Your task to perform on an android device: open a bookmark in the chrome app Image 0: 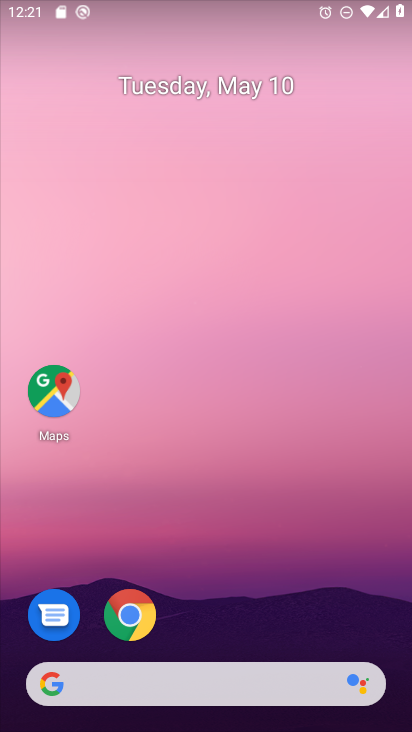
Step 0: drag from (213, 691) to (405, 160)
Your task to perform on an android device: open a bookmark in the chrome app Image 1: 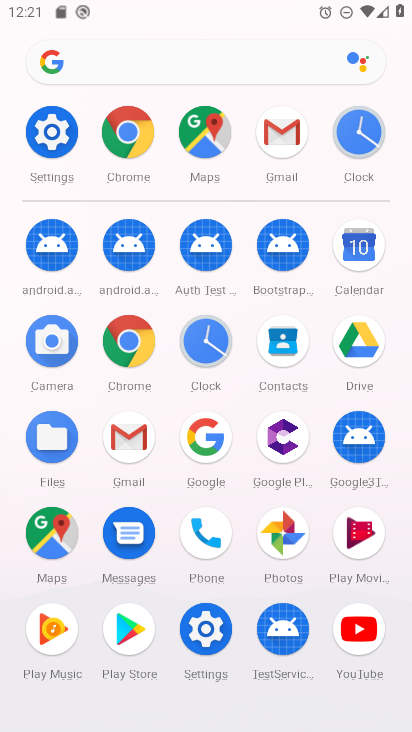
Step 1: click (132, 343)
Your task to perform on an android device: open a bookmark in the chrome app Image 2: 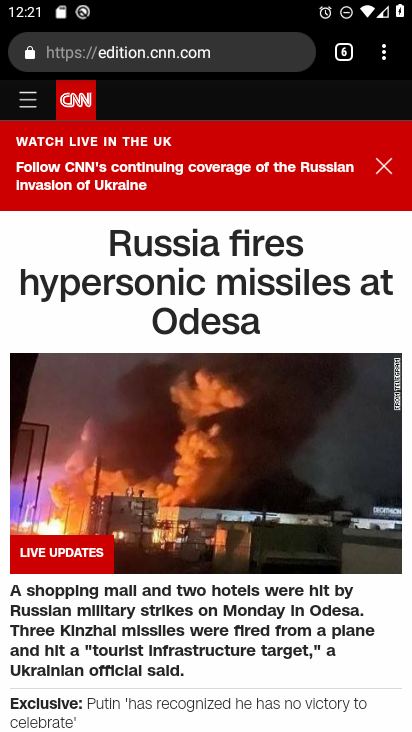
Step 2: click (375, 55)
Your task to perform on an android device: open a bookmark in the chrome app Image 3: 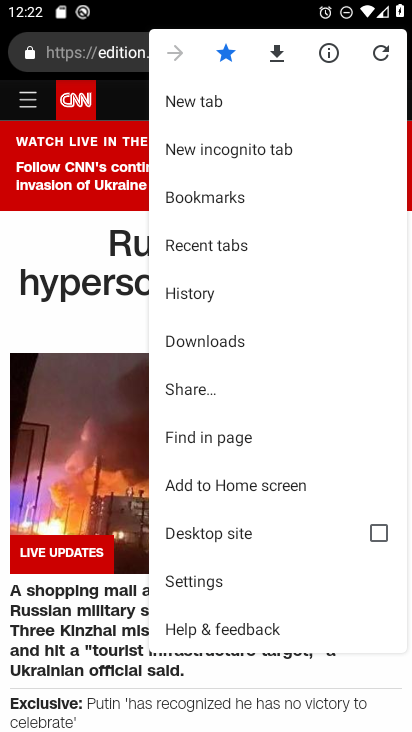
Step 3: click (210, 205)
Your task to perform on an android device: open a bookmark in the chrome app Image 4: 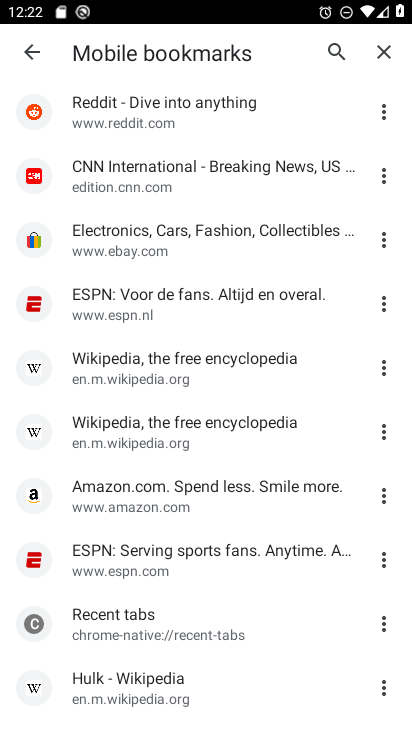
Step 4: click (97, 371)
Your task to perform on an android device: open a bookmark in the chrome app Image 5: 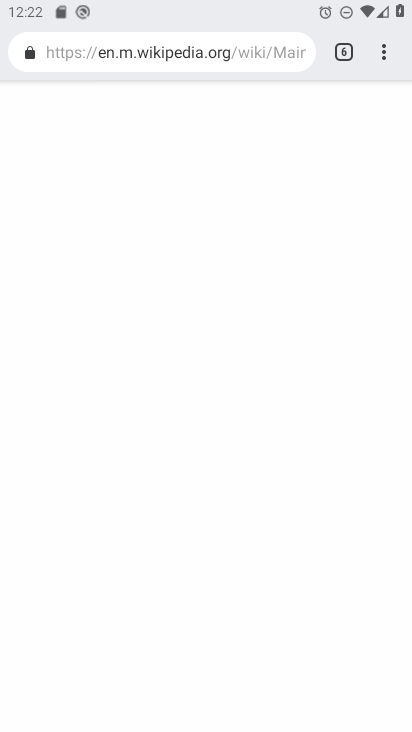
Step 5: task complete